Your task to perform on an android device: Go to display settings Image 0: 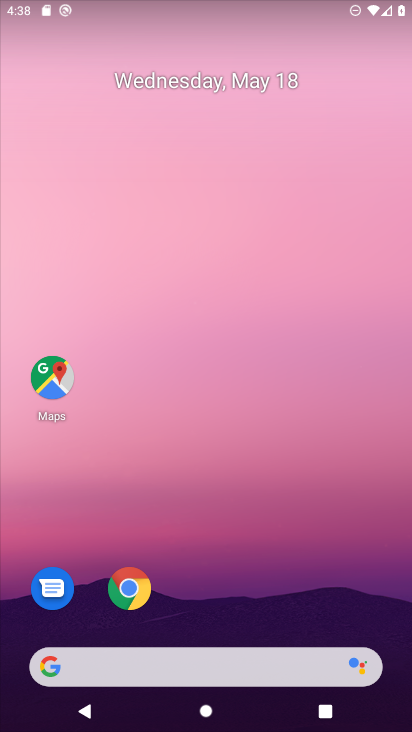
Step 0: drag from (206, 586) to (285, 81)
Your task to perform on an android device: Go to display settings Image 1: 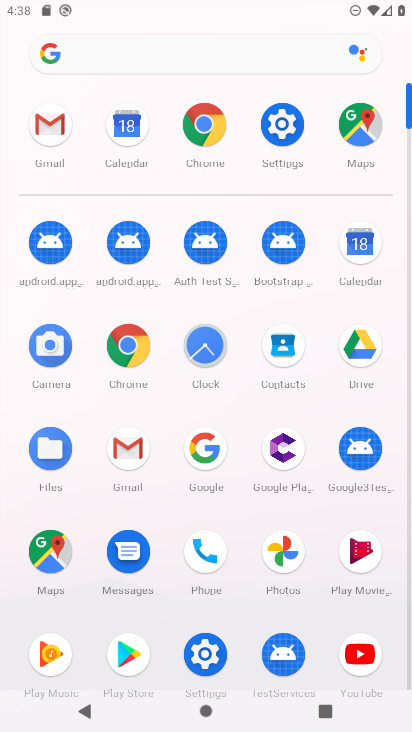
Step 1: click (271, 137)
Your task to perform on an android device: Go to display settings Image 2: 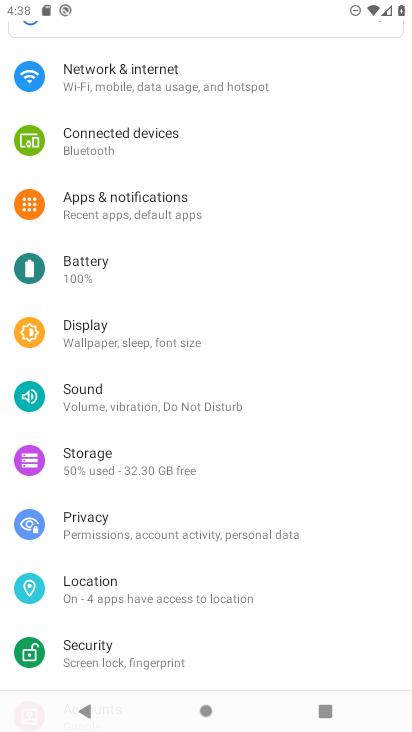
Step 2: click (179, 327)
Your task to perform on an android device: Go to display settings Image 3: 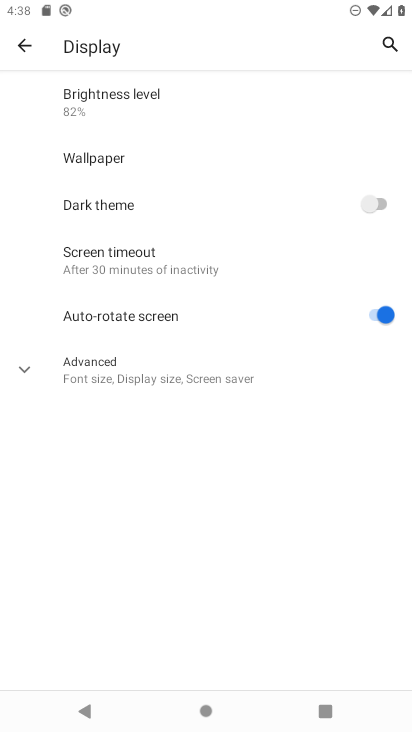
Step 3: task complete